Your task to perform on an android device: Open Youtube and go to "Your channel" Image 0: 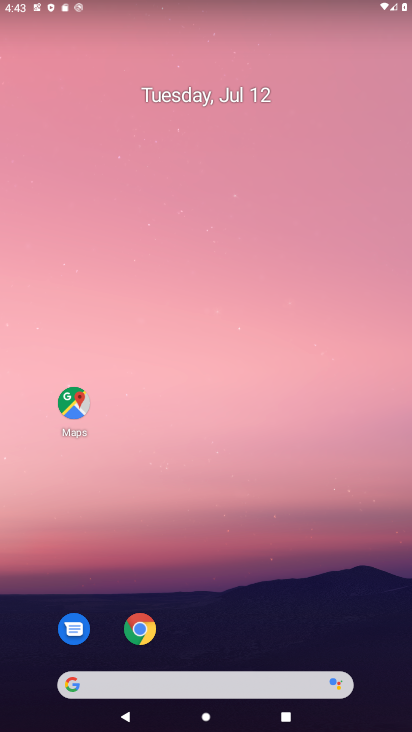
Step 0: press home button
Your task to perform on an android device: Open Youtube and go to "Your channel" Image 1: 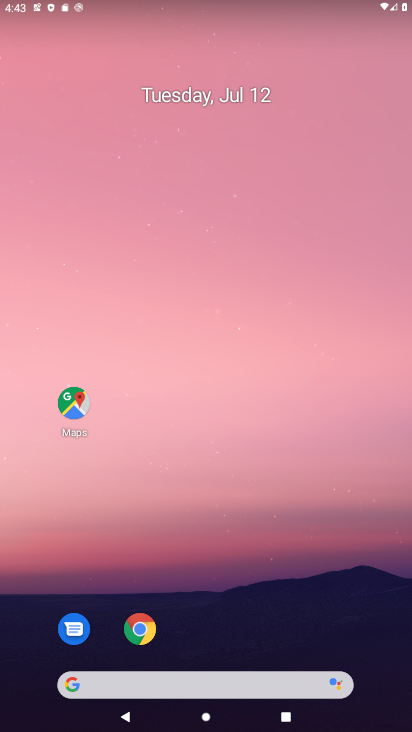
Step 1: drag from (308, 652) to (285, 43)
Your task to perform on an android device: Open Youtube and go to "Your channel" Image 2: 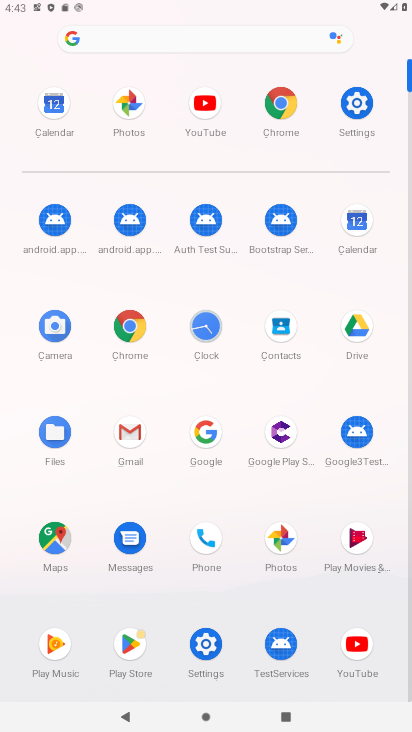
Step 2: click (354, 646)
Your task to perform on an android device: Open Youtube and go to "Your channel" Image 3: 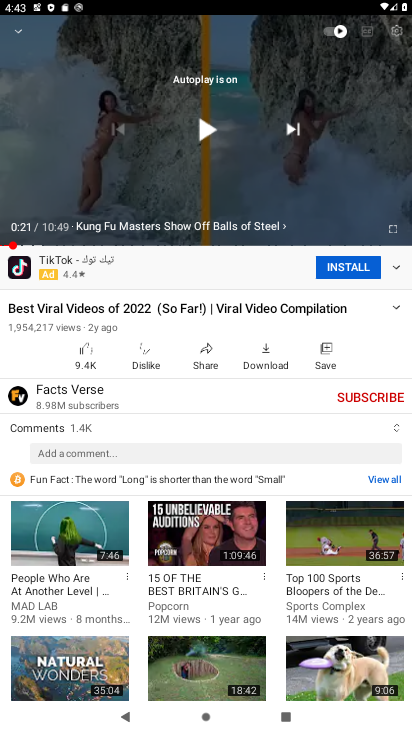
Step 3: press back button
Your task to perform on an android device: Open Youtube and go to "Your channel" Image 4: 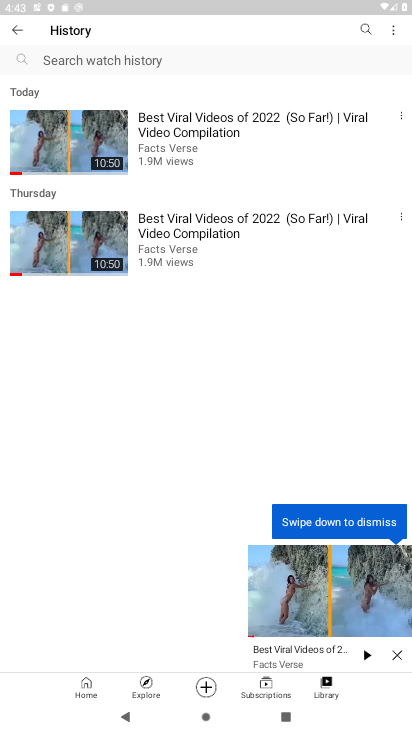
Step 4: press back button
Your task to perform on an android device: Open Youtube and go to "Your channel" Image 5: 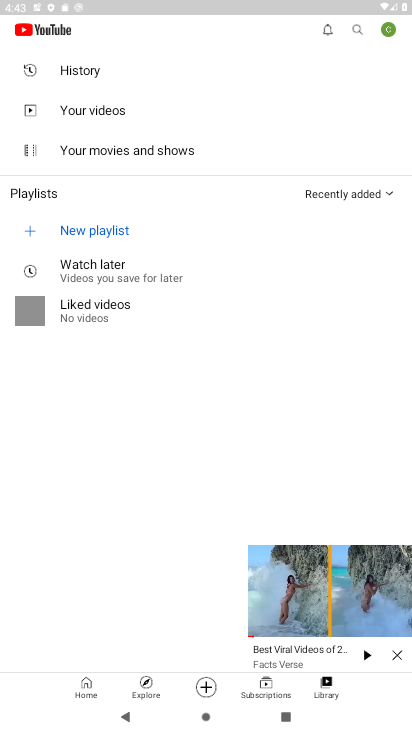
Step 5: click (385, 31)
Your task to perform on an android device: Open Youtube and go to "Your channel" Image 6: 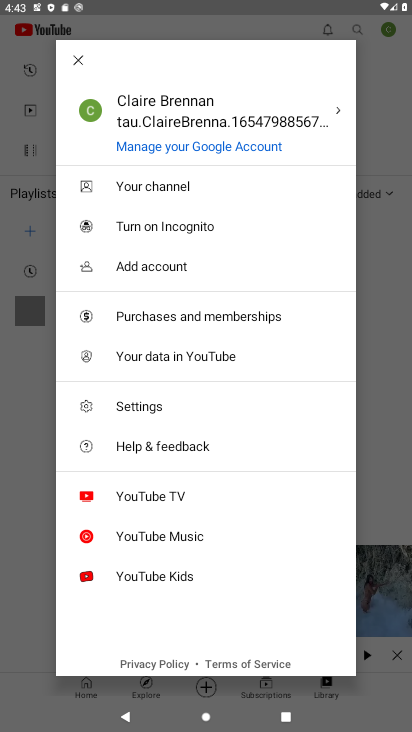
Step 6: click (155, 188)
Your task to perform on an android device: Open Youtube and go to "Your channel" Image 7: 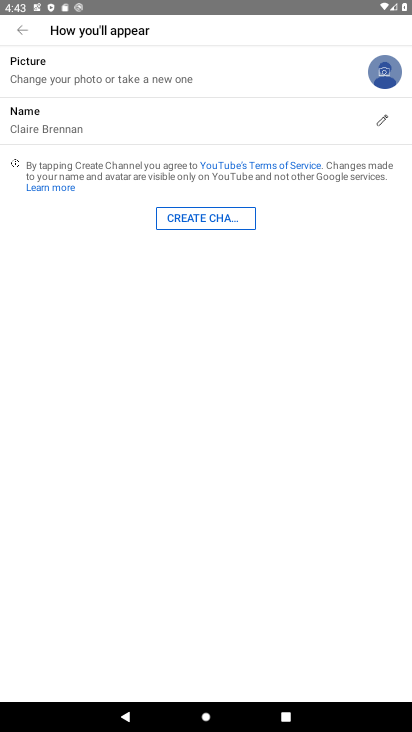
Step 7: task complete